Your task to perform on an android device: all mails in gmail Image 0: 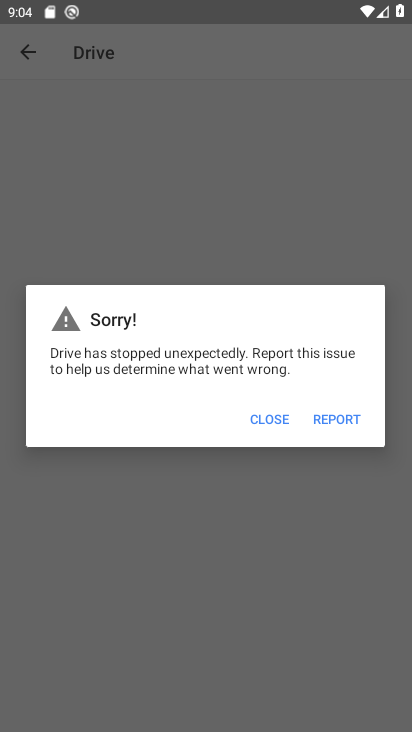
Step 0: press home button
Your task to perform on an android device: all mails in gmail Image 1: 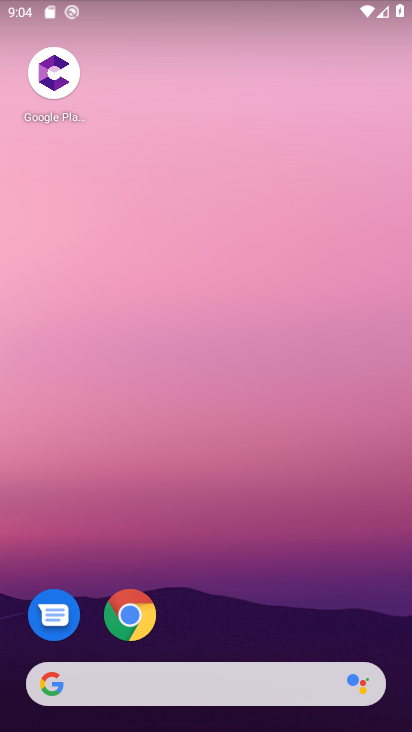
Step 1: drag from (261, 615) to (261, 39)
Your task to perform on an android device: all mails in gmail Image 2: 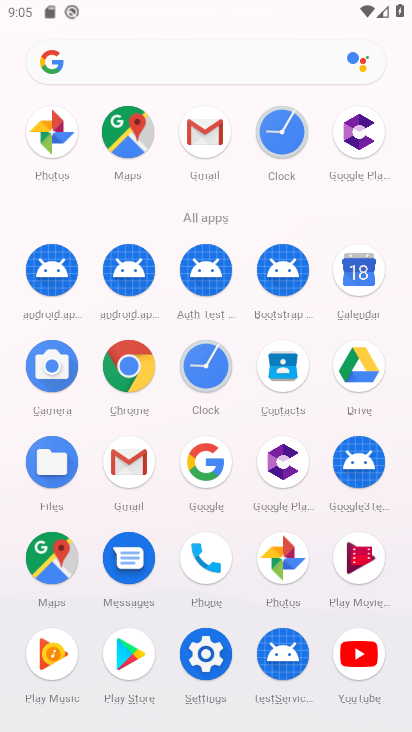
Step 2: click (127, 459)
Your task to perform on an android device: all mails in gmail Image 3: 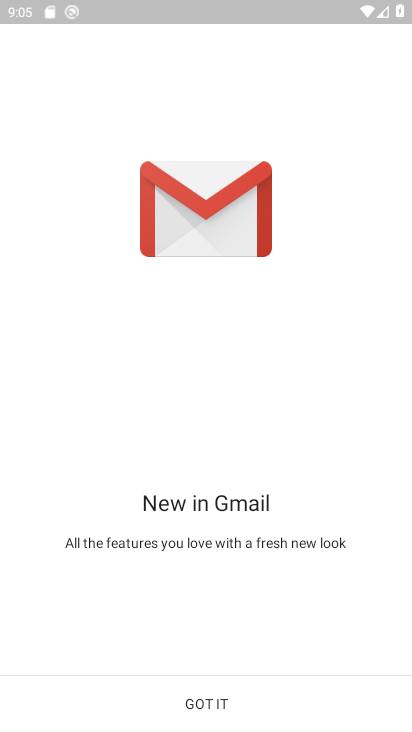
Step 3: click (236, 693)
Your task to perform on an android device: all mails in gmail Image 4: 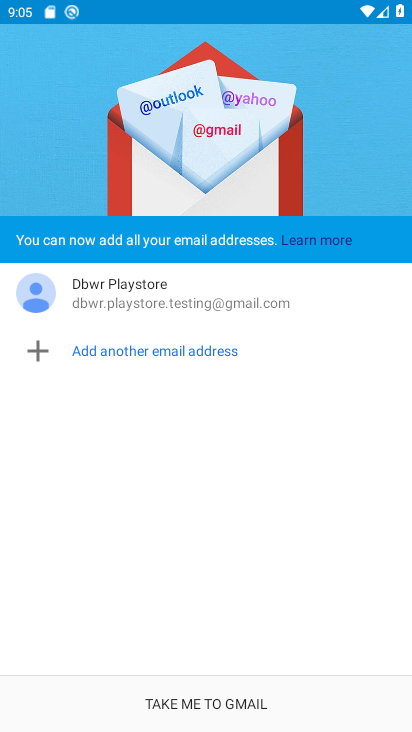
Step 4: click (225, 706)
Your task to perform on an android device: all mails in gmail Image 5: 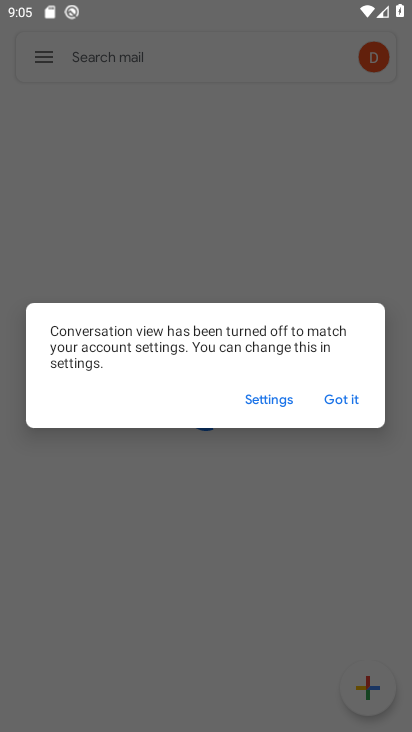
Step 5: click (361, 402)
Your task to perform on an android device: all mails in gmail Image 6: 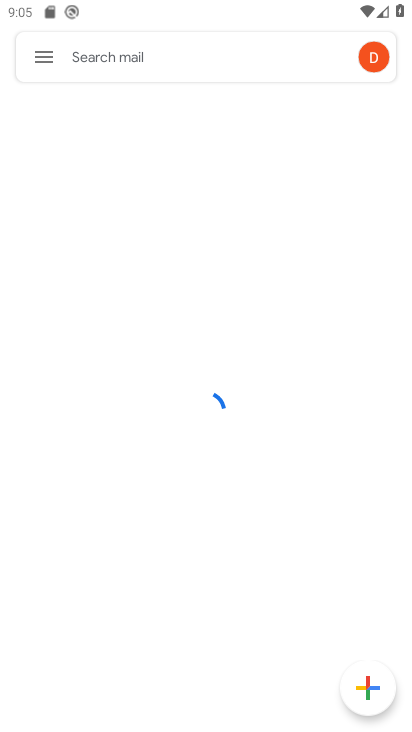
Step 6: click (48, 57)
Your task to perform on an android device: all mails in gmail Image 7: 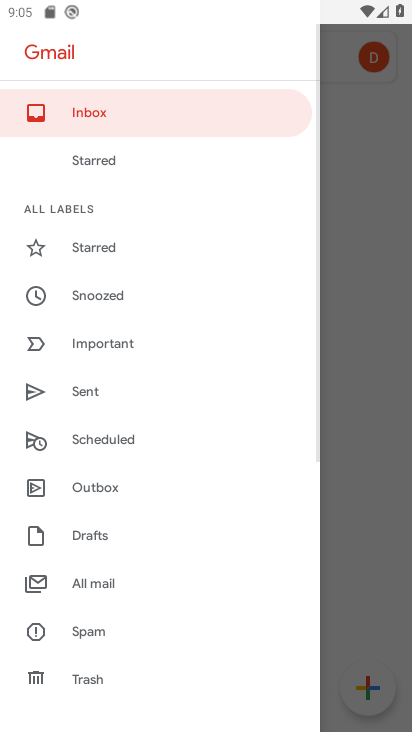
Step 7: click (114, 581)
Your task to perform on an android device: all mails in gmail Image 8: 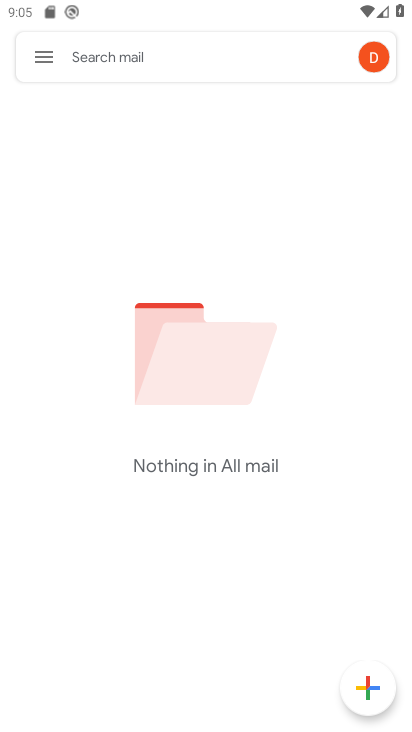
Step 8: task complete